Your task to perform on an android device: Open the calendar and show me this week's events? Image 0: 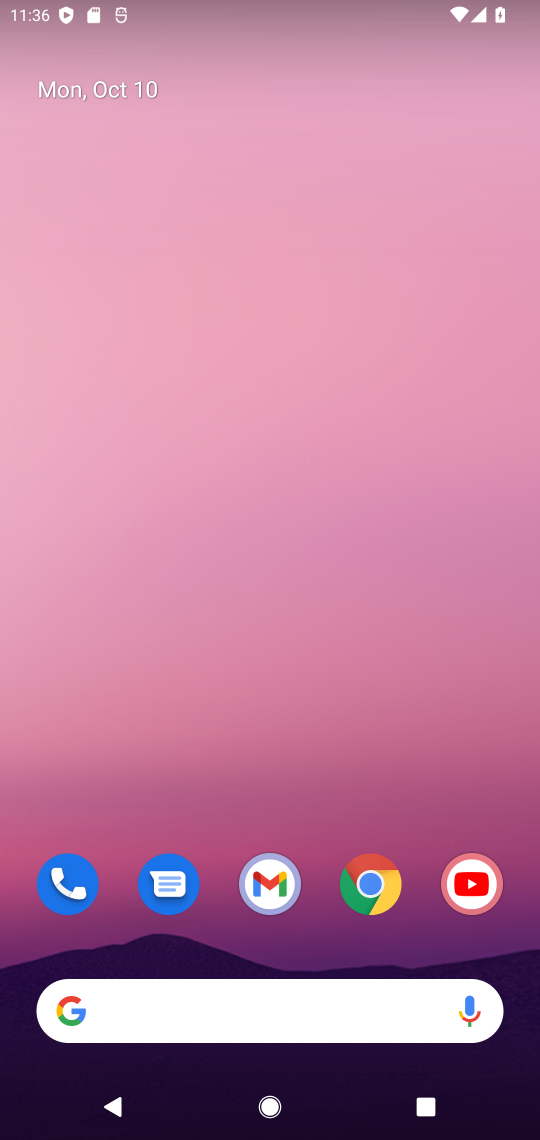
Step 0: click (358, 877)
Your task to perform on an android device: Open the calendar and show me this week's events? Image 1: 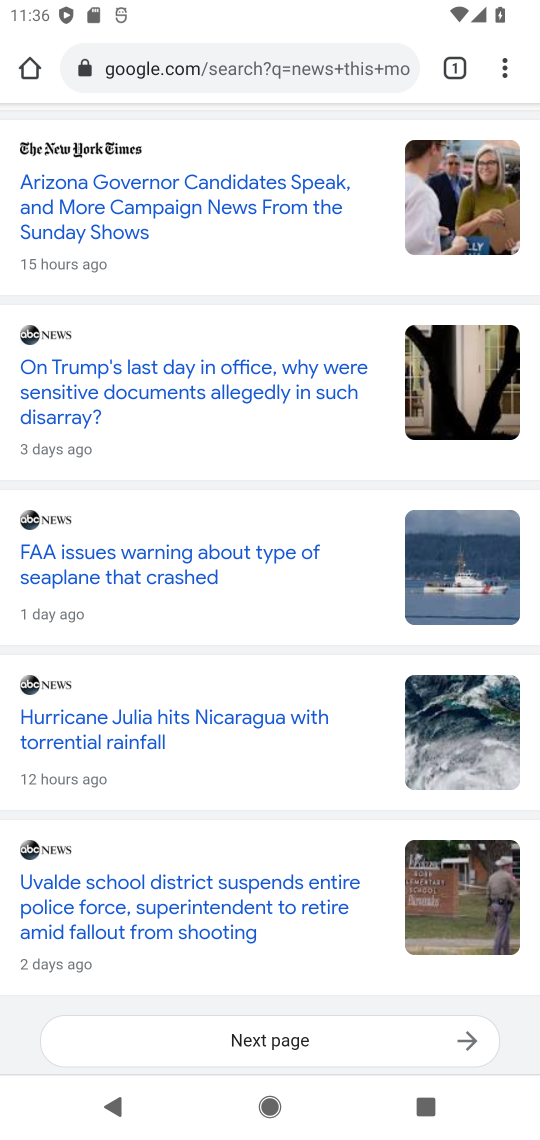
Step 1: press home button
Your task to perform on an android device: Open the calendar and show me this week's events? Image 2: 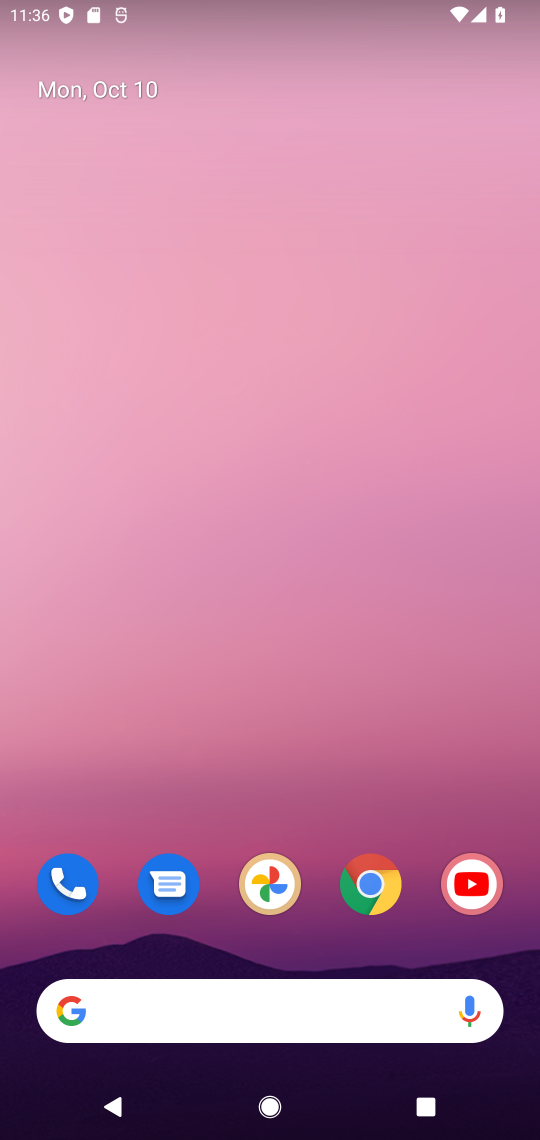
Step 2: drag from (350, 694) to (266, 128)
Your task to perform on an android device: Open the calendar and show me this week's events? Image 3: 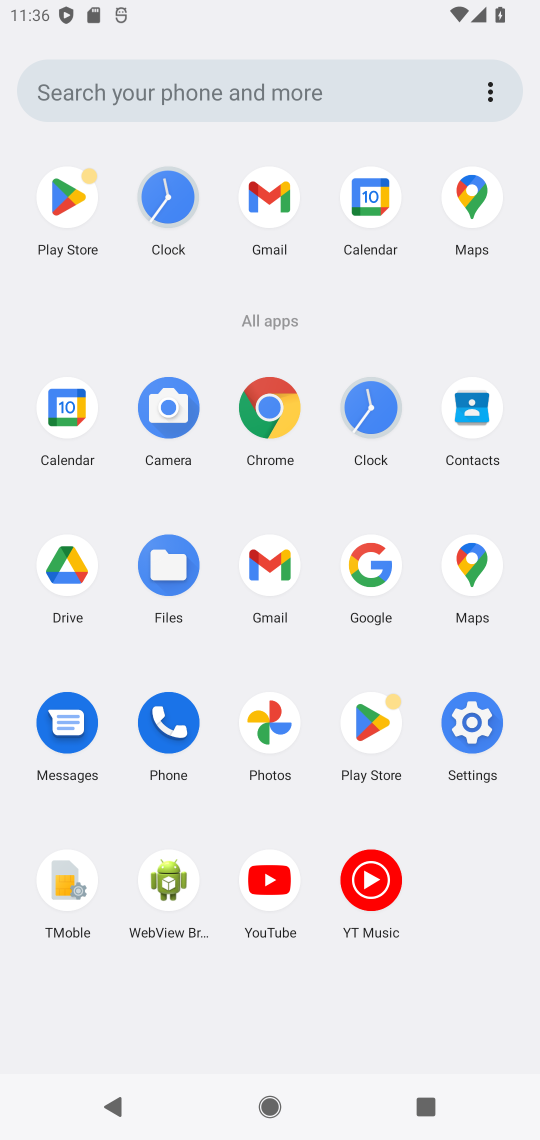
Step 3: click (58, 418)
Your task to perform on an android device: Open the calendar and show me this week's events? Image 4: 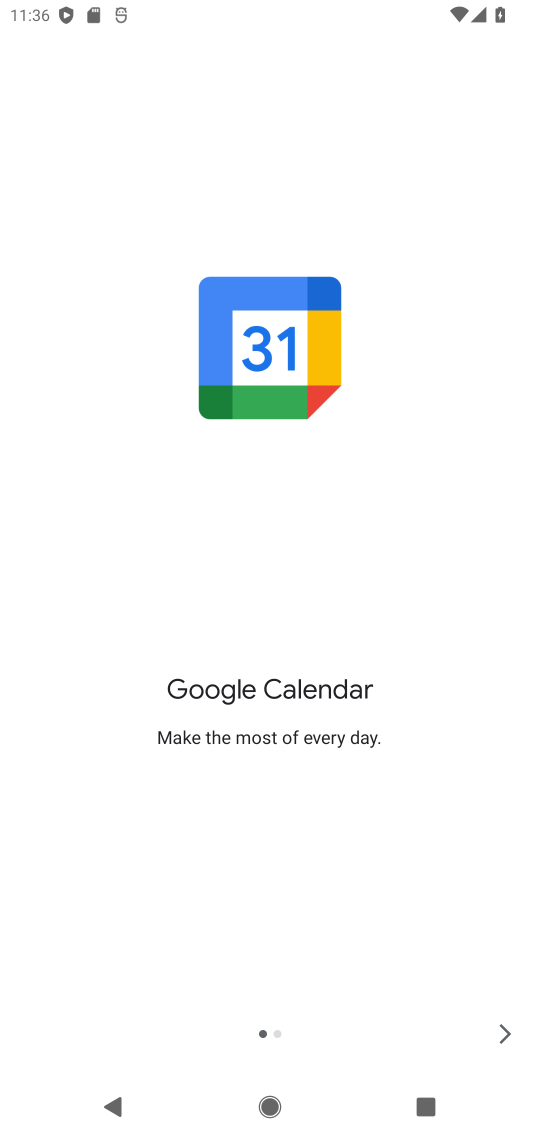
Step 4: click (504, 1045)
Your task to perform on an android device: Open the calendar and show me this week's events? Image 5: 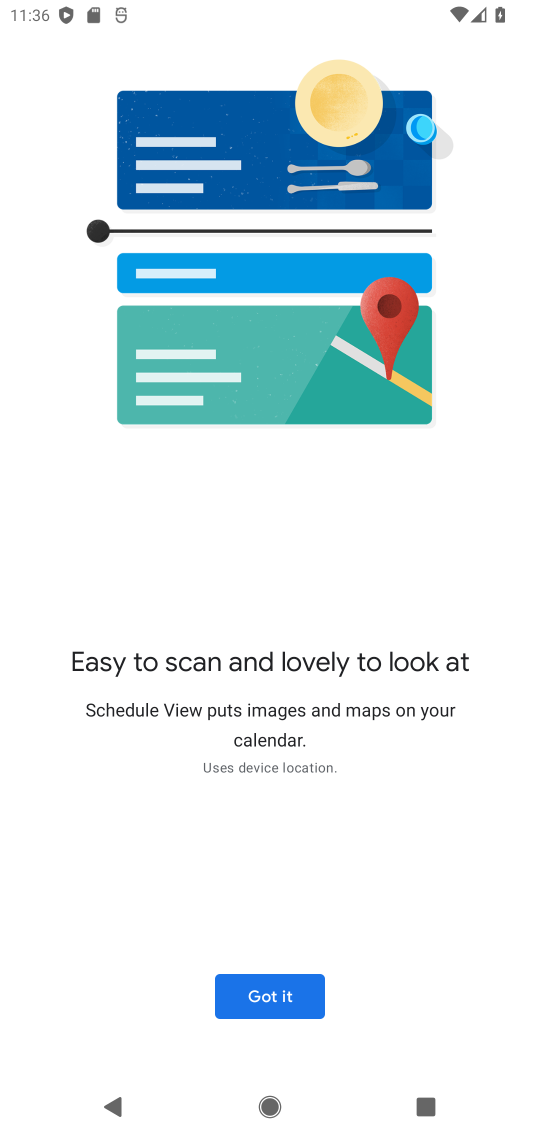
Step 5: click (504, 1045)
Your task to perform on an android device: Open the calendar and show me this week's events? Image 6: 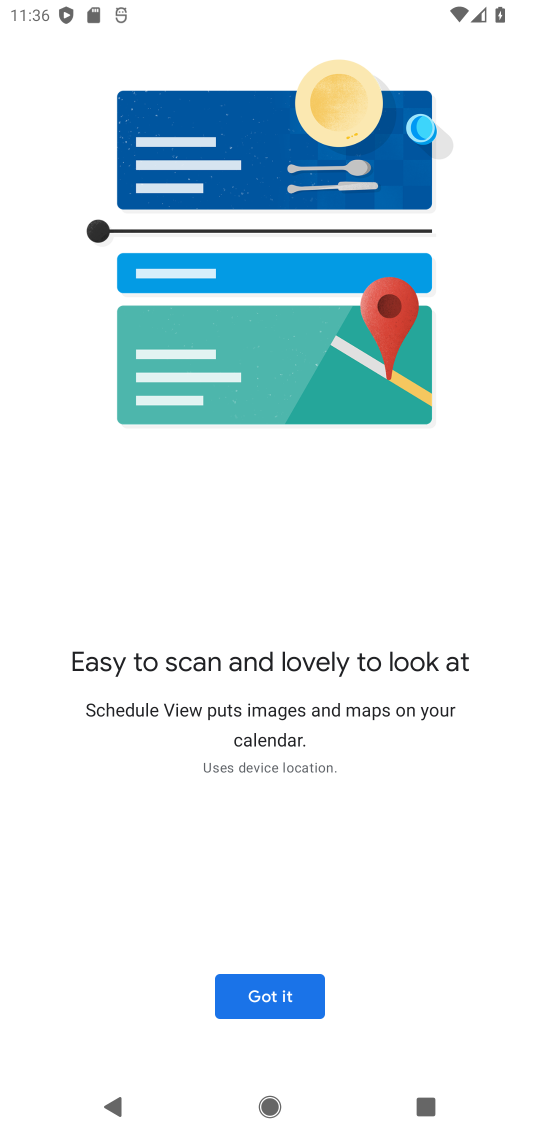
Step 6: click (295, 1002)
Your task to perform on an android device: Open the calendar and show me this week's events? Image 7: 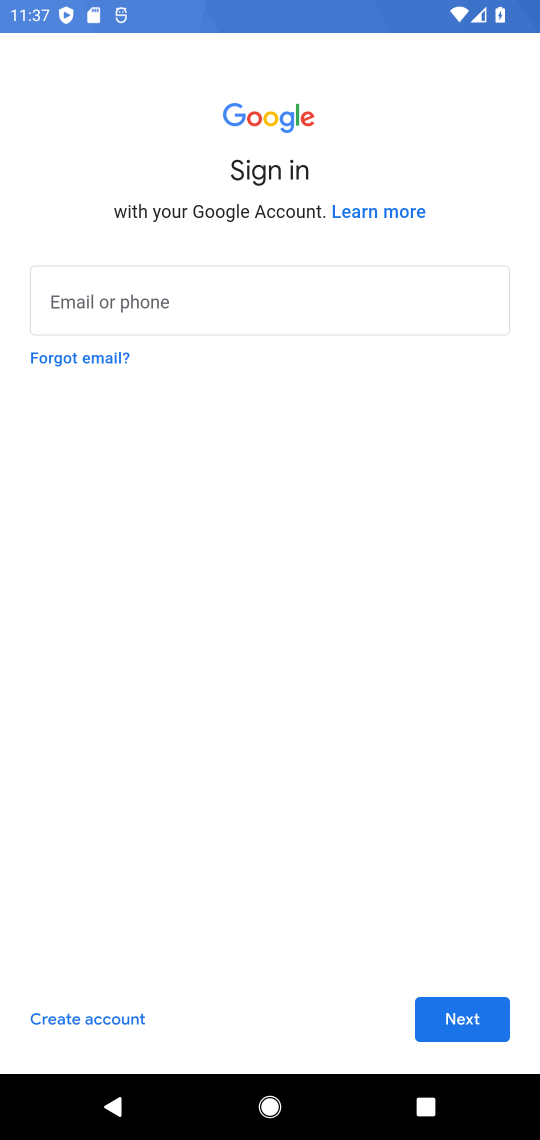
Step 7: press back button
Your task to perform on an android device: Open the calendar and show me this week's events? Image 8: 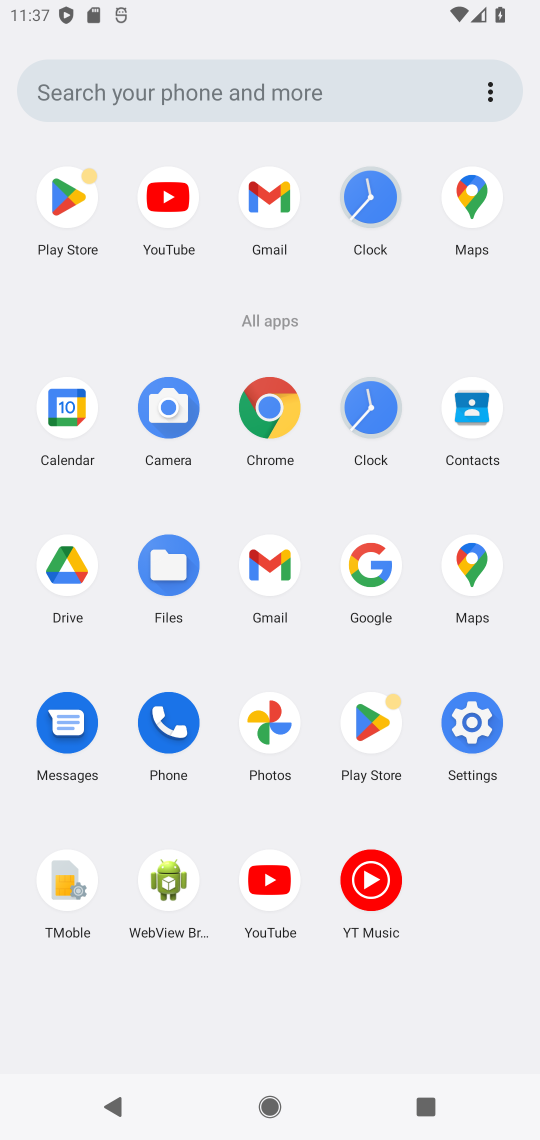
Step 8: click (62, 424)
Your task to perform on an android device: Open the calendar and show me this week's events? Image 9: 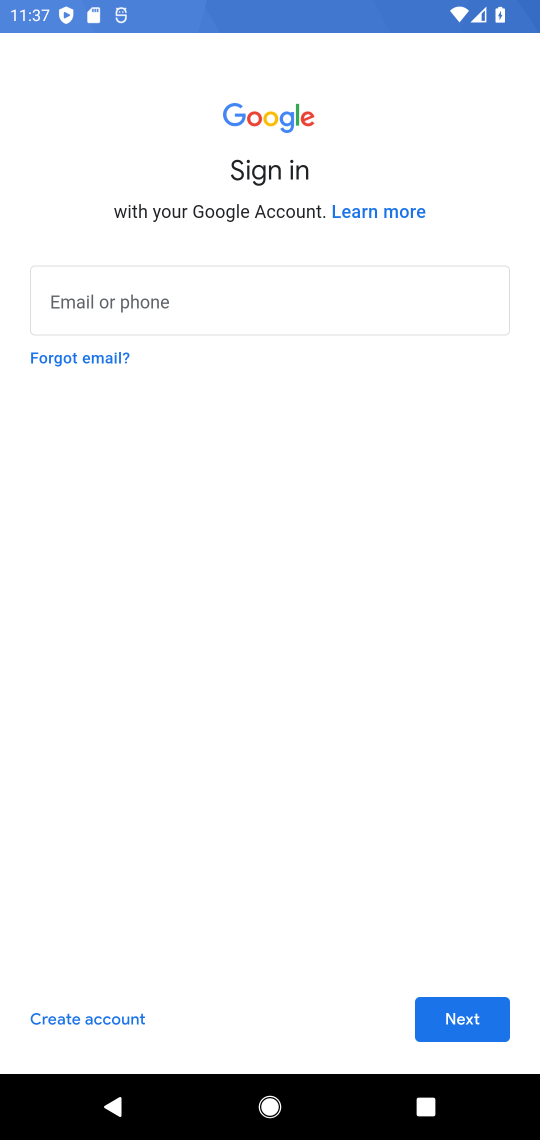
Step 9: drag from (325, 862) to (273, 420)
Your task to perform on an android device: Open the calendar and show me this week's events? Image 10: 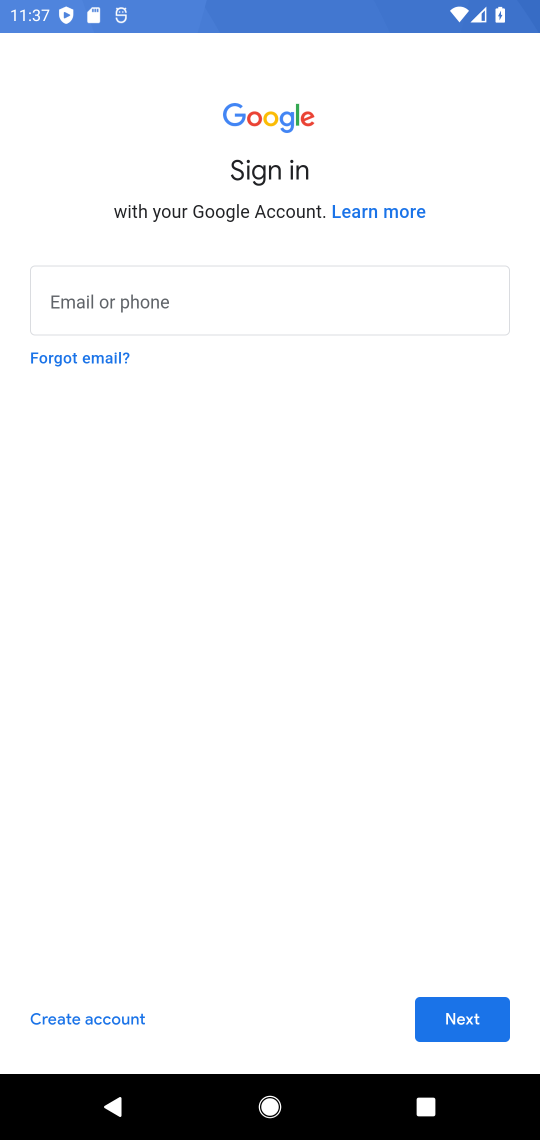
Step 10: click (461, 1021)
Your task to perform on an android device: Open the calendar and show me this week's events? Image 11: 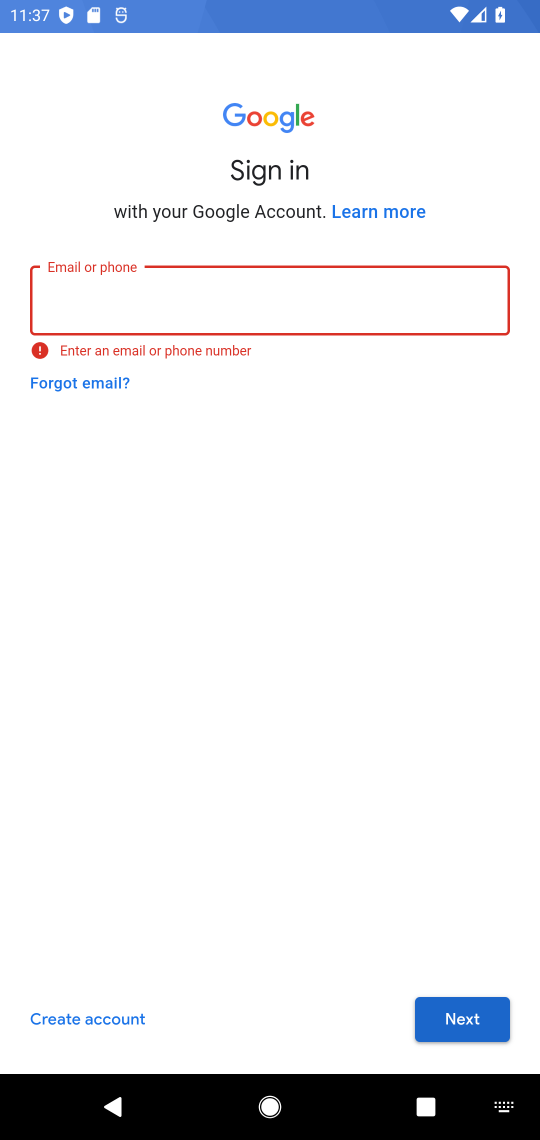
Step 11: task complete